Your task to perform on an android device: Open Wikipedia Image 0: 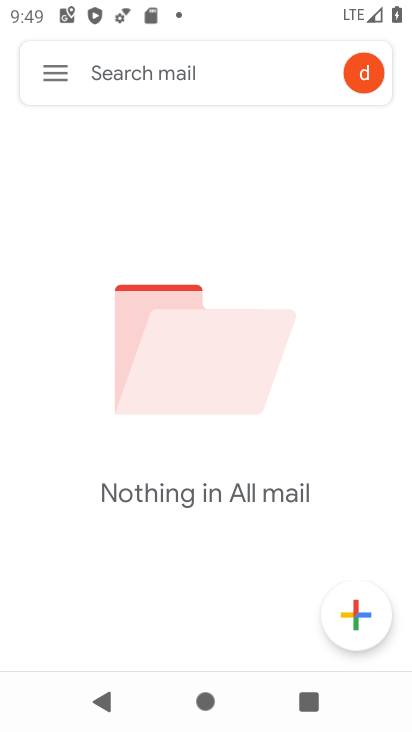
Step 0: press home button
Your task to perform on an android device: Open Wikipedia Image 1: 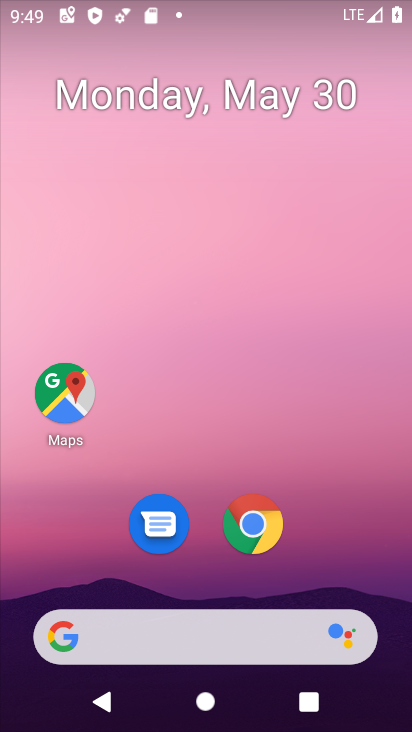
Step 1: click (266, 528)
Your task to perform on an android device: Open Wikipedia Image 2: 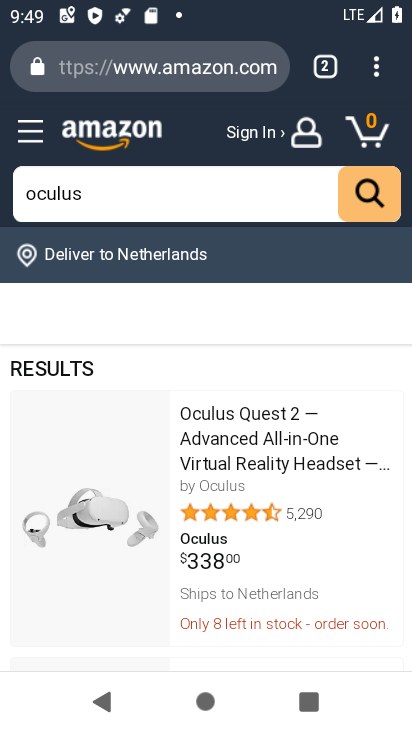
Step 2: click (376, 78)
Your task to perform on an android device: Open Wikipedia Image 3: 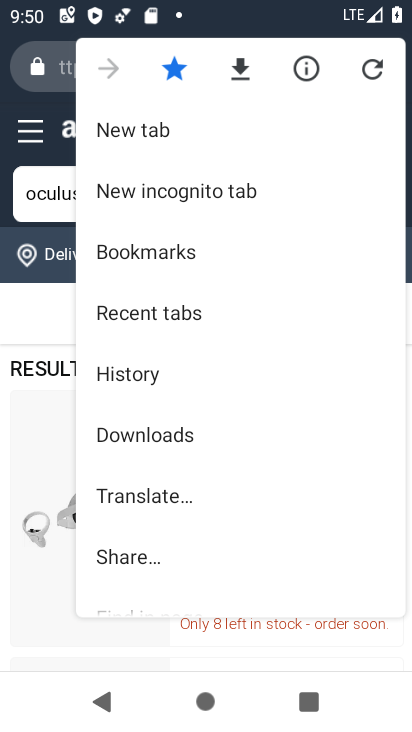
Step 3: click (267, 128)
Your task to perform on an android device: Open Wikipedia Image 4: 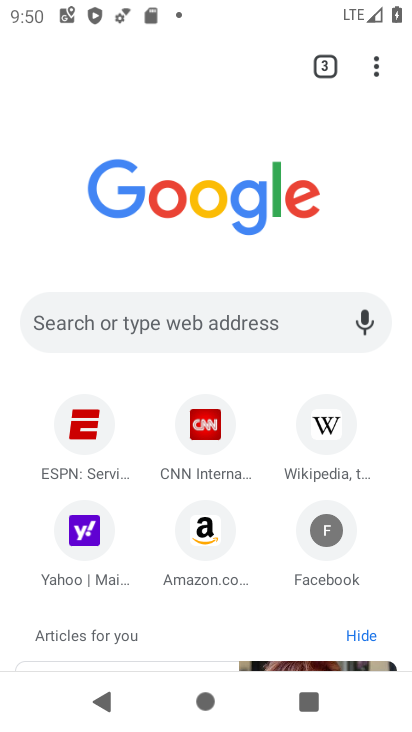
Step 4: click (327, 415)
Your task to perform on an android device: Open Wikipedia Image 5: 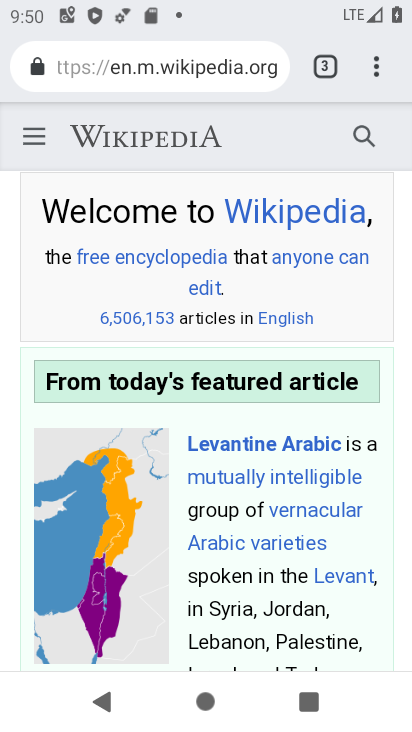
Step 5: task complete